Your task to perform on an android device: remove spam from my inbox in the gmail app Image 0: 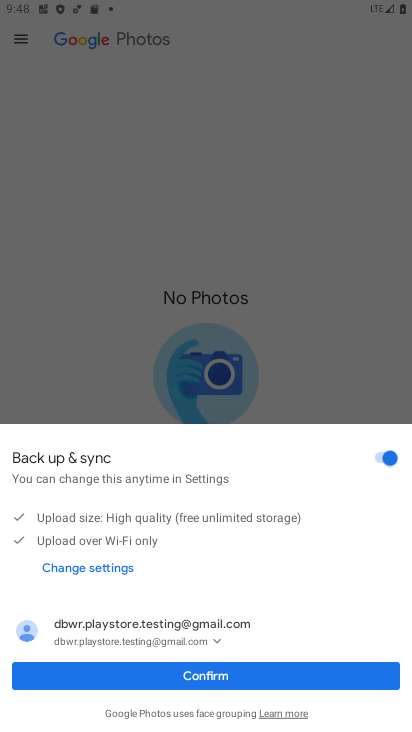
Step 0: press home button
Your task to perform on an android device: remove spam from my inbox in the gmail app Image 1: 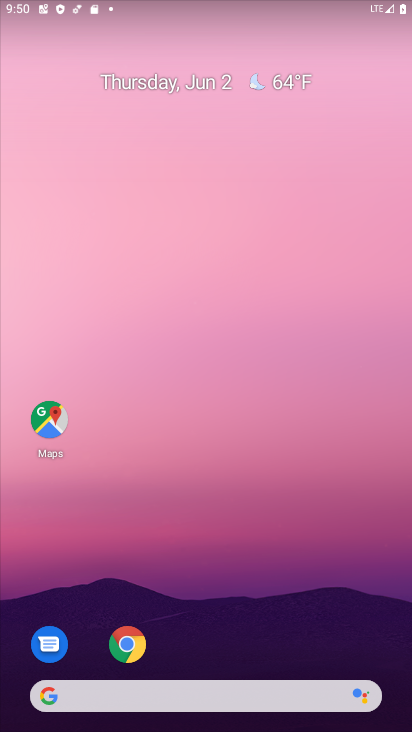
Step 1: drag from (267, 604) to (304, 81)
Your task to perform on an android device: remove spam from my inbox in the gmail app Image 2: 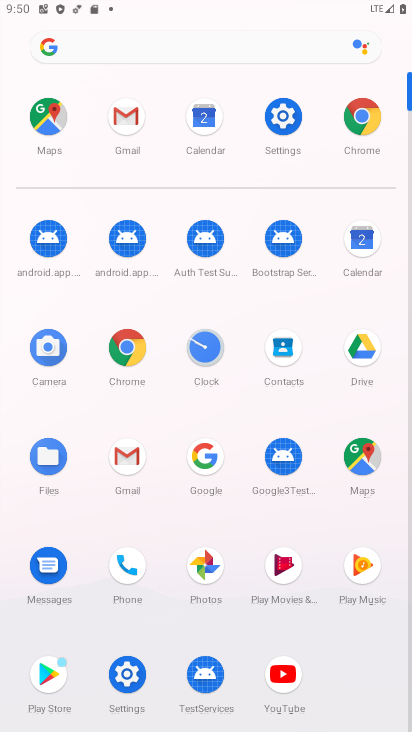
Step 2: click (145, 145)
Your task to perform on an android device: remove spam from my inbox in the gmail app Image 3: 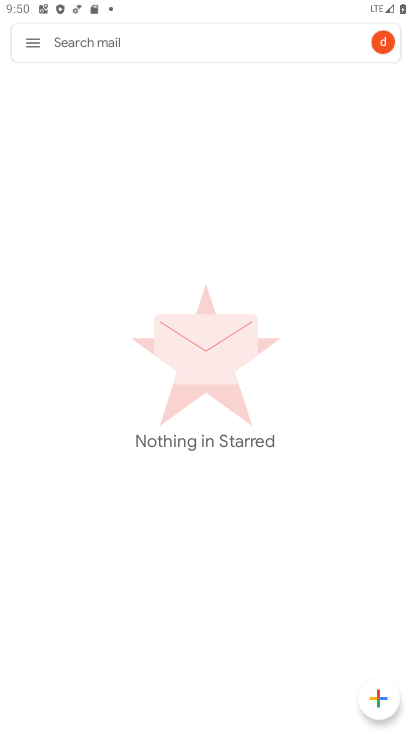
Step 3: click (40, 47)
Your task to perform on an android device: remove spam from my inbox in the gmail app Image 4: 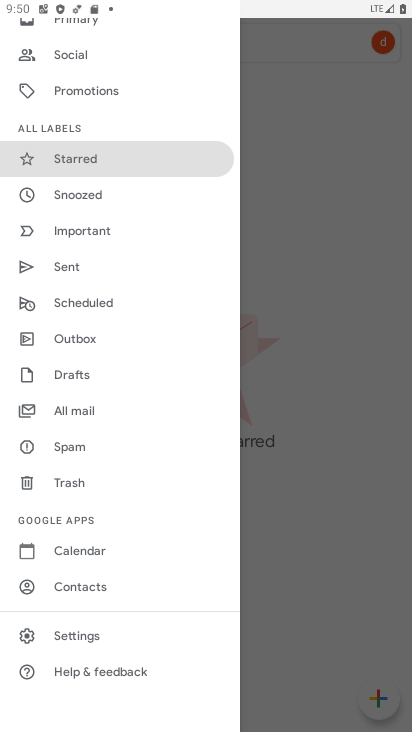
Step 4: task complete